Your task to perform on an android device: turn on sleep mode Image 0: 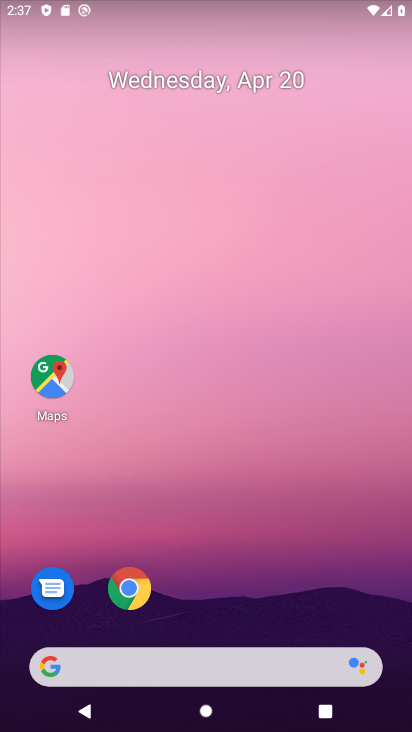
Step 0: drag from (309, 129) to (329, 530)
Your task to perform on an android device: turn on sleep mode Image 1: 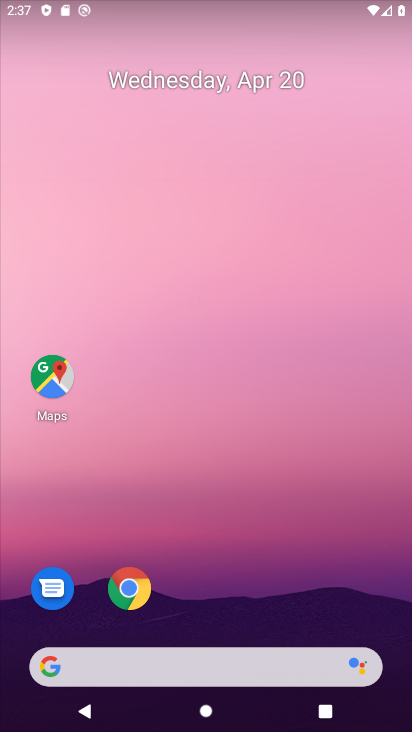
Step 1: task complete